Your task to perform on an android device: change the clock display to analog Image 0: 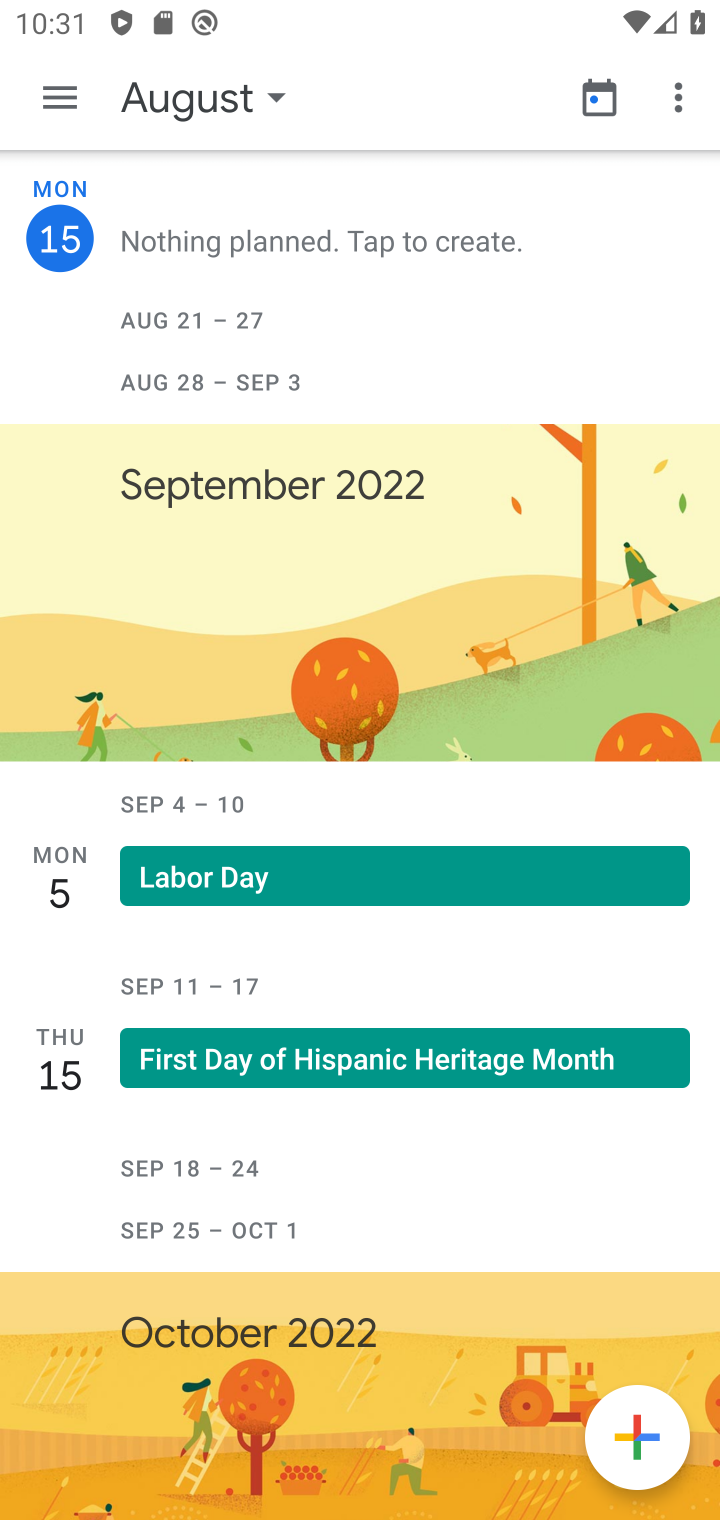
Step 0: press home button
Your task to perform on an android device: change the clock display to analog Image 1: 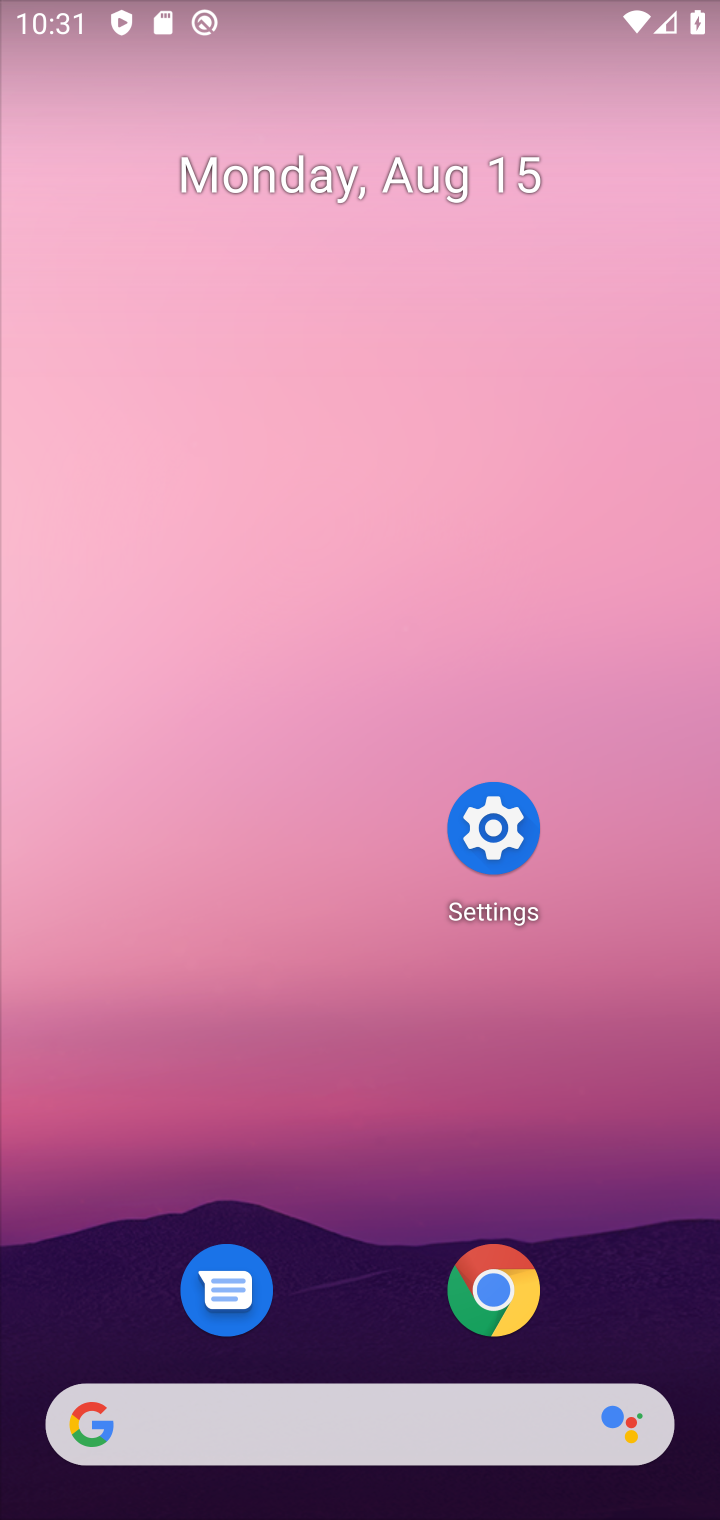
Step 1: drag from (436, 982) to (500, 204)
Your task to perform on an android device: change the clock display to analog Image 2: 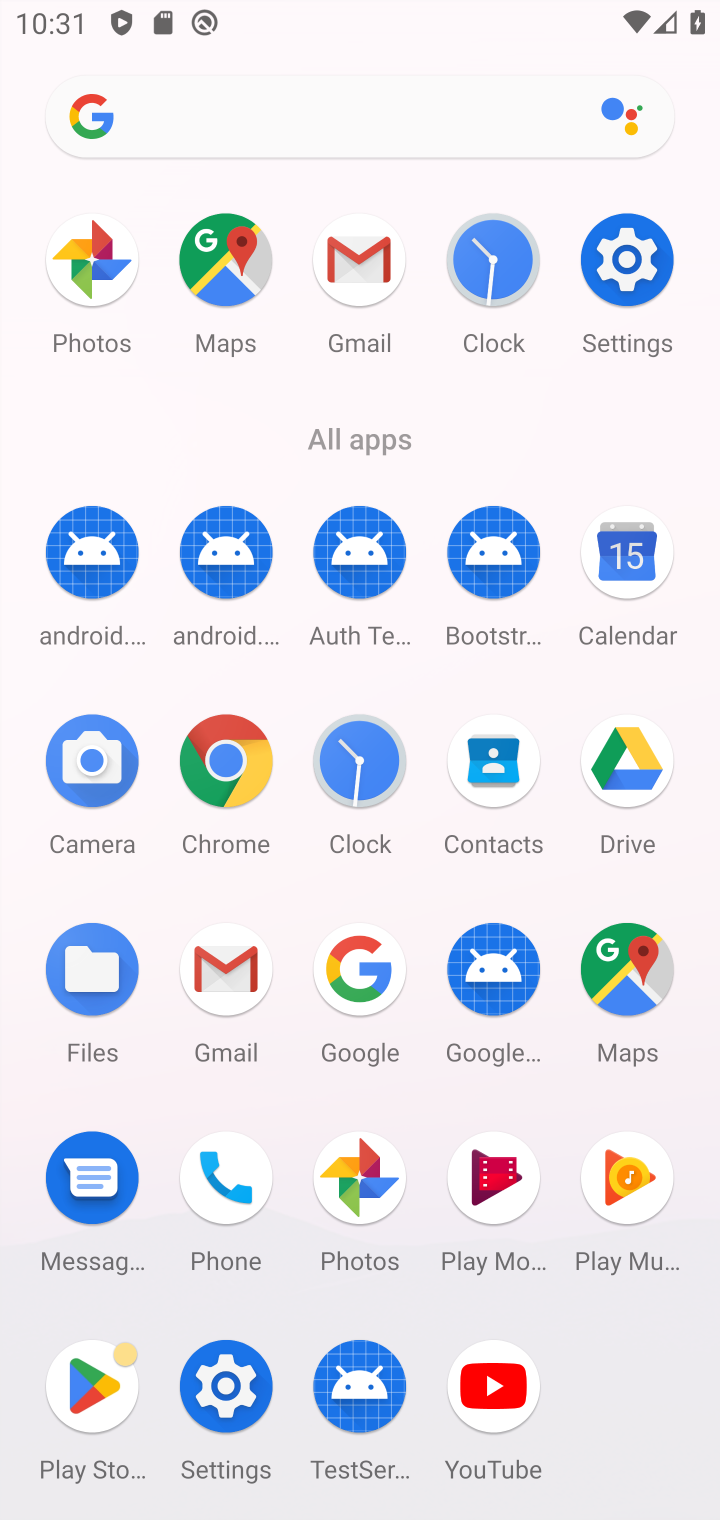
Step 2: click (486, 268)
Your task to perform on an android device: change the clock display to analog Image 3: 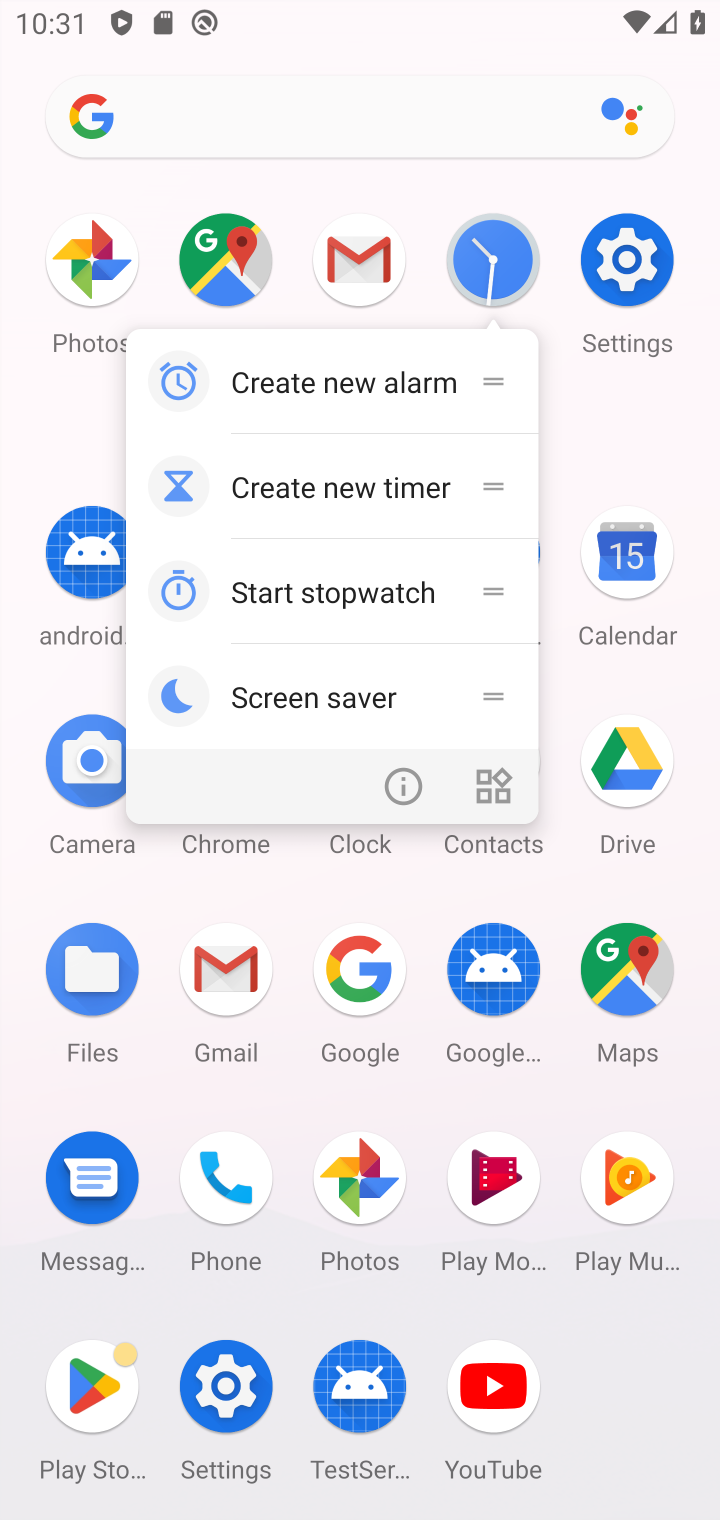
Step 3: click (486, 265)
Your task to perform on an android device: change the clock display to analog Image 4: 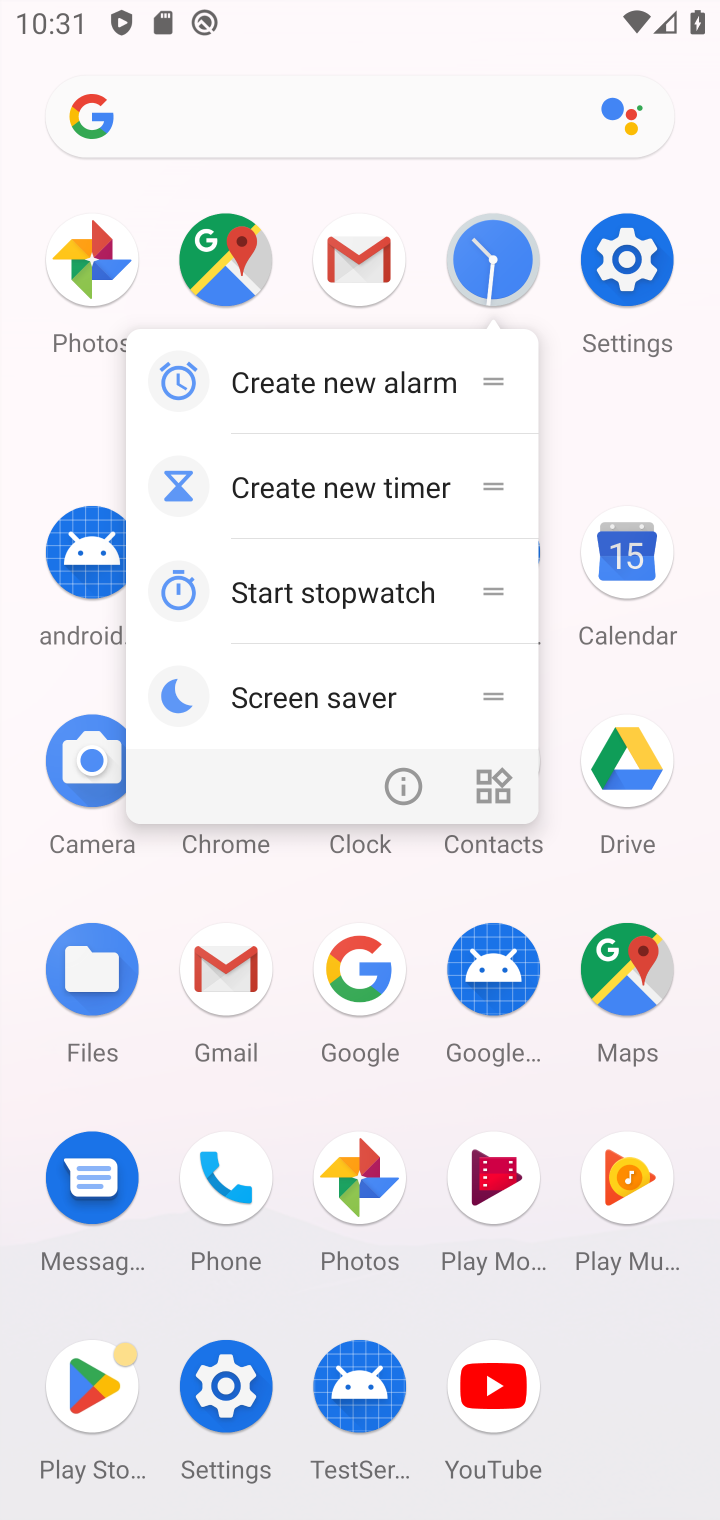
Step 4: click (497, 256)
Your task to perform on an android device: change the clock display to analog Image 5: 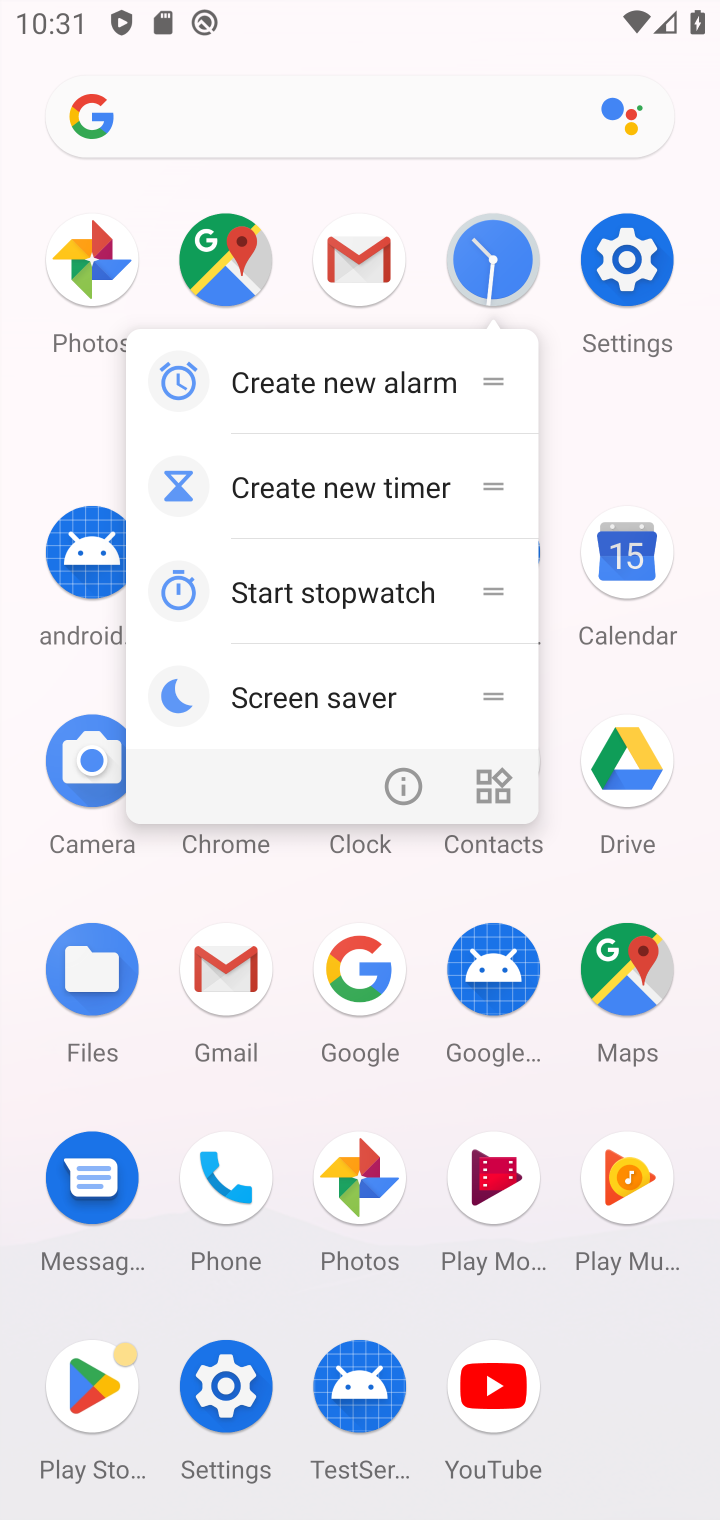
Step 5: click (497, 249)
Your task to perform on an android device: change the clock display to analog Image 6: 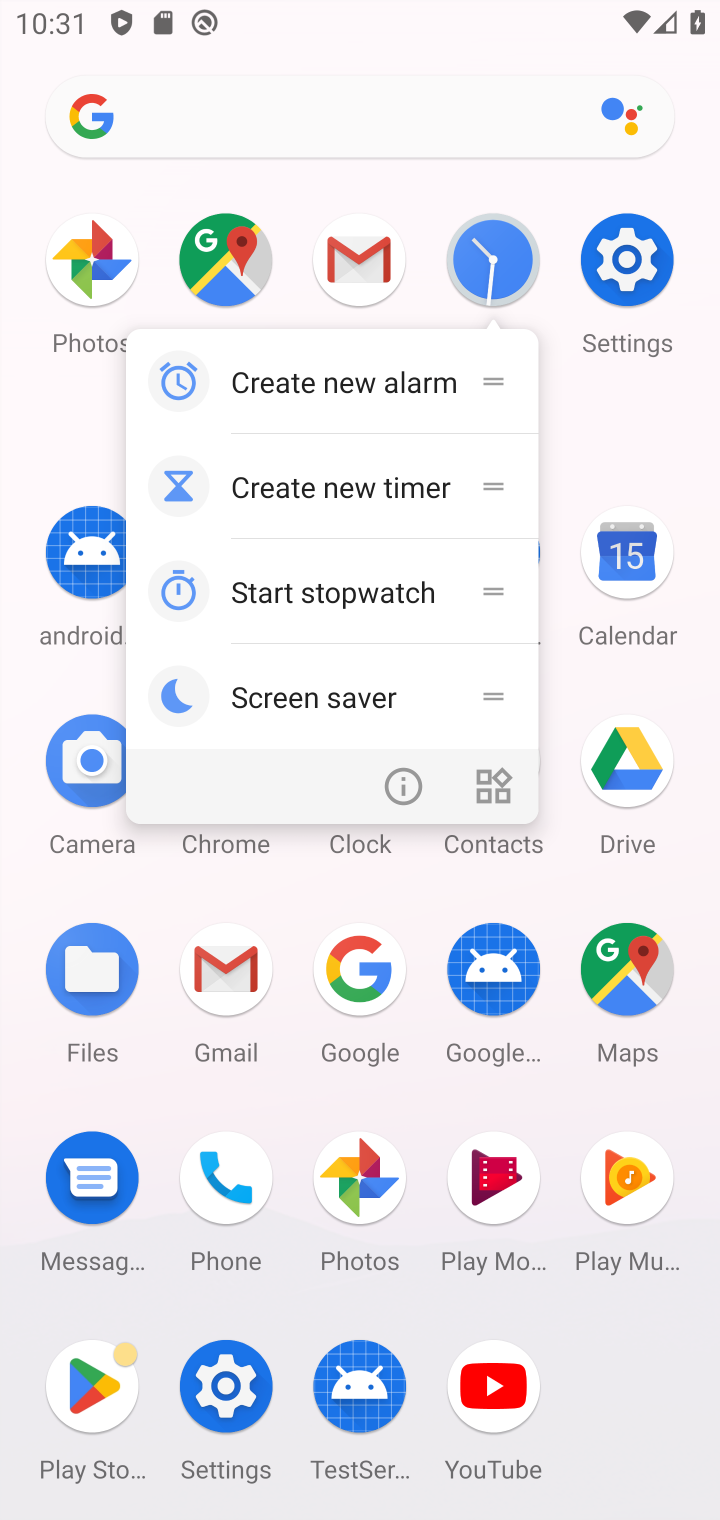
Step 6: click (501, 254)
Your task to perform on an android device: change the clock display to analog Image 7: 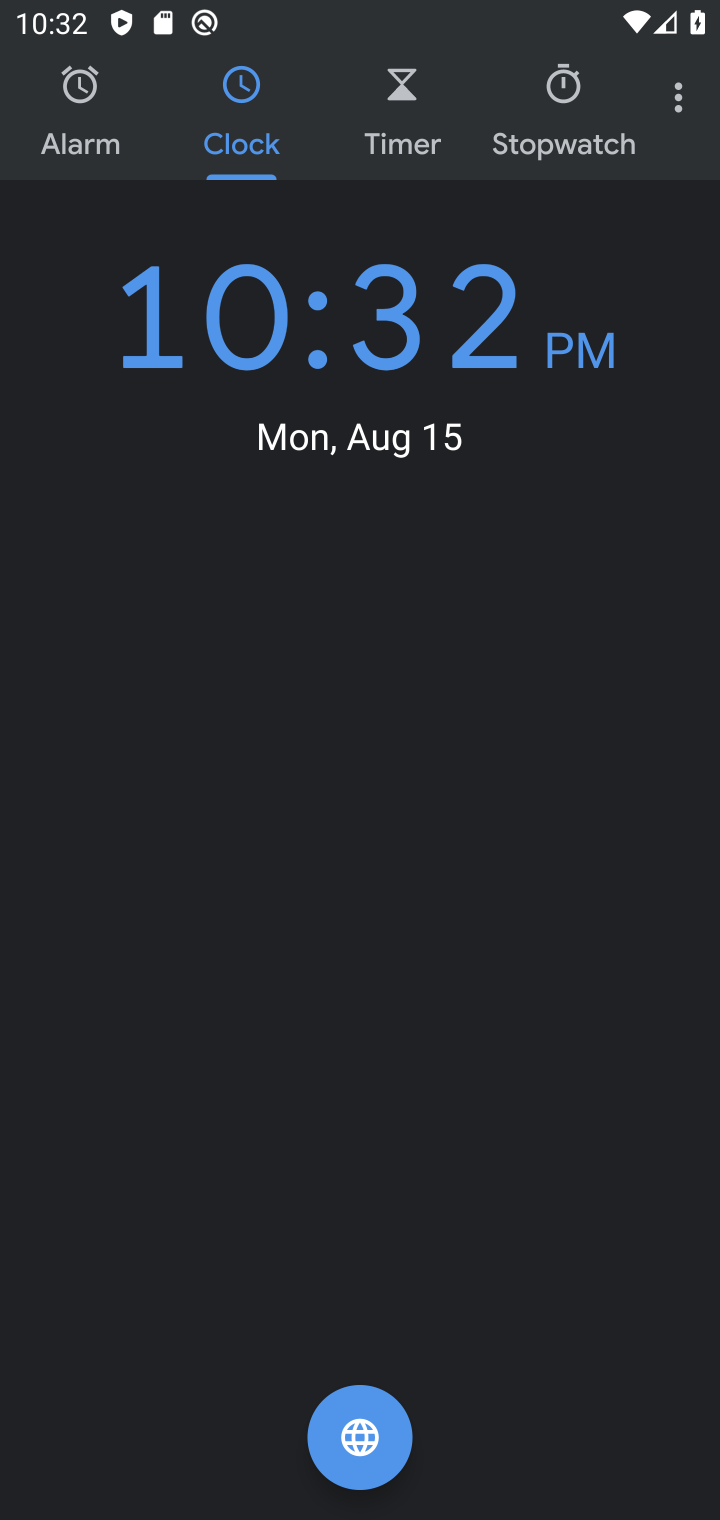
Step 7: click (673, 91)
Your task to perform on an android device: change the clock display to analog Image 8: 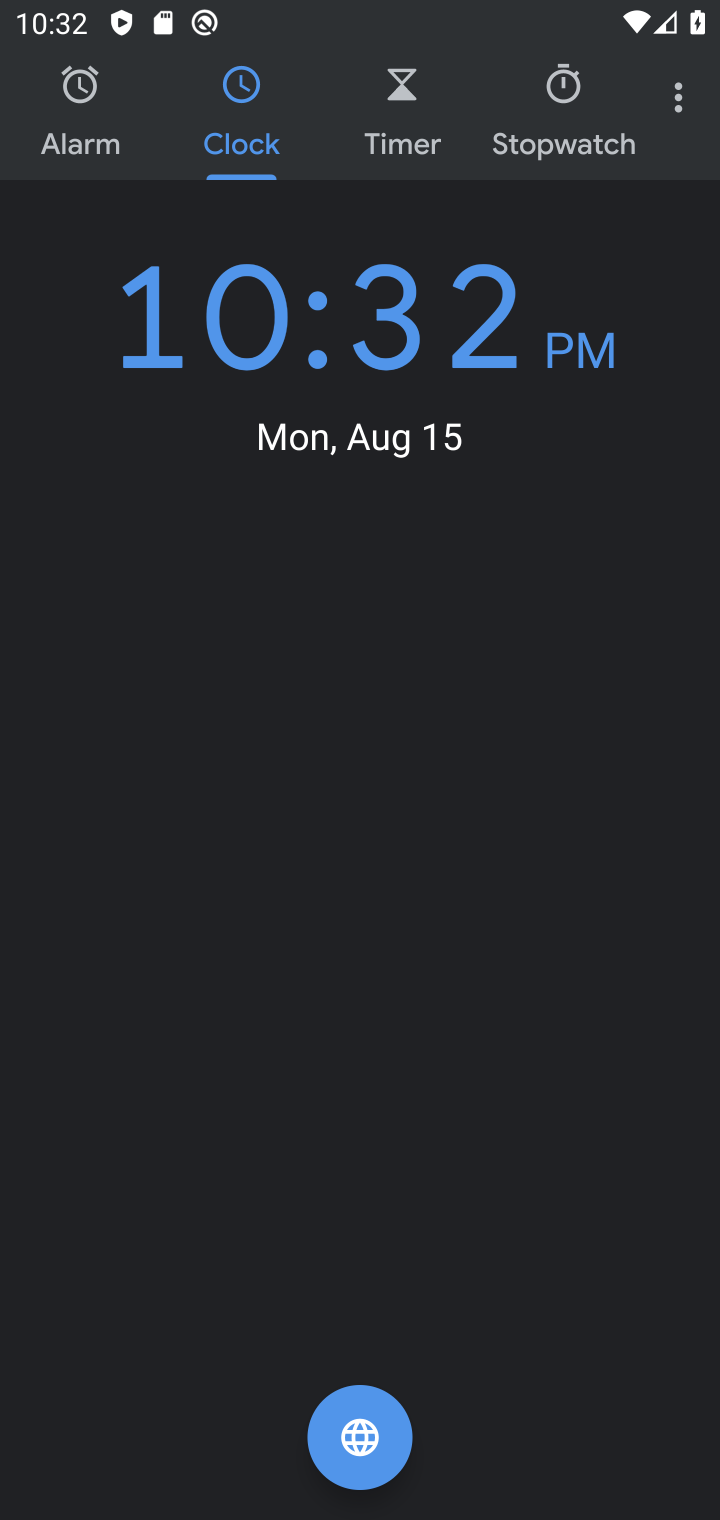
Step 8: click (672, 98)
Your task to perform on an android device: change the clock display to analog Image 9: 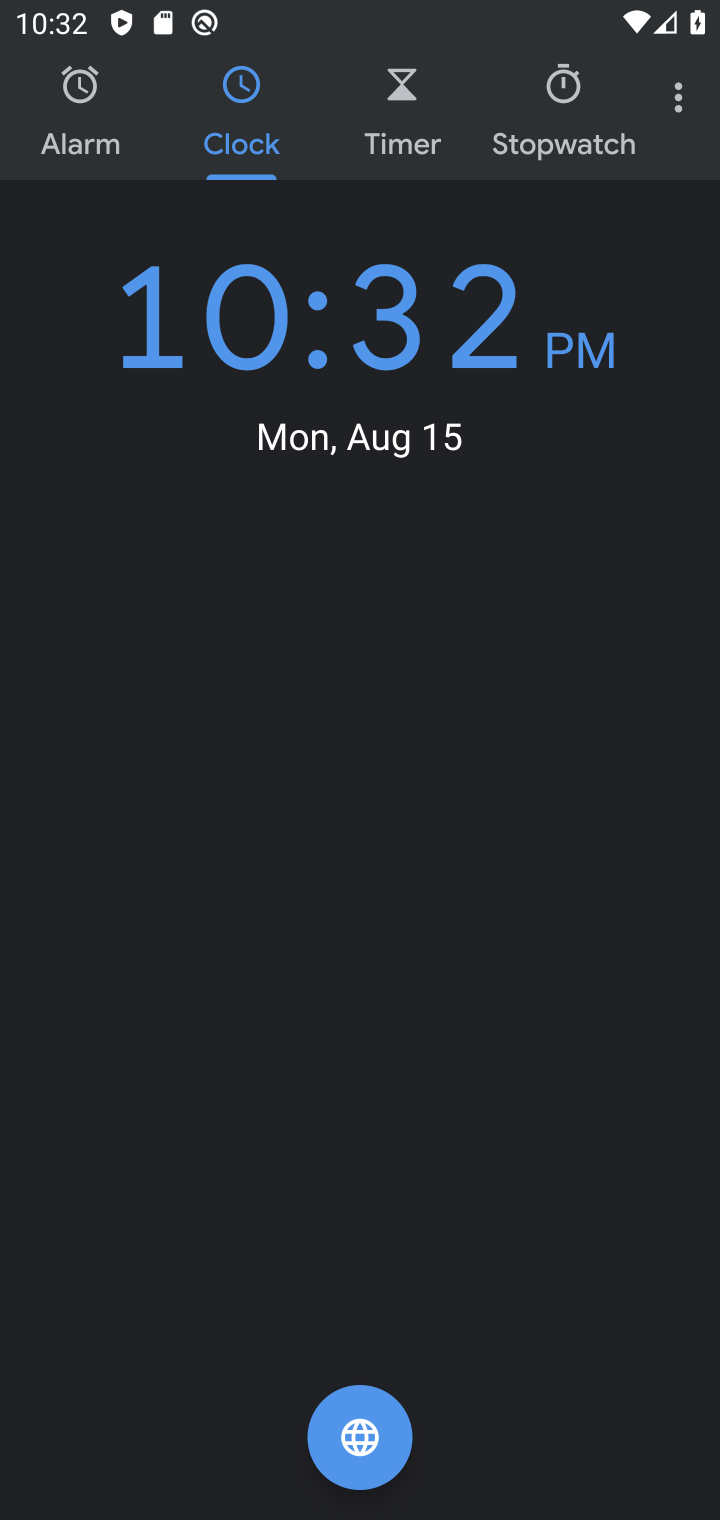
Step 9: click (682, 112)
Your task to perform on an android device: change the clock display to analog Image 10: 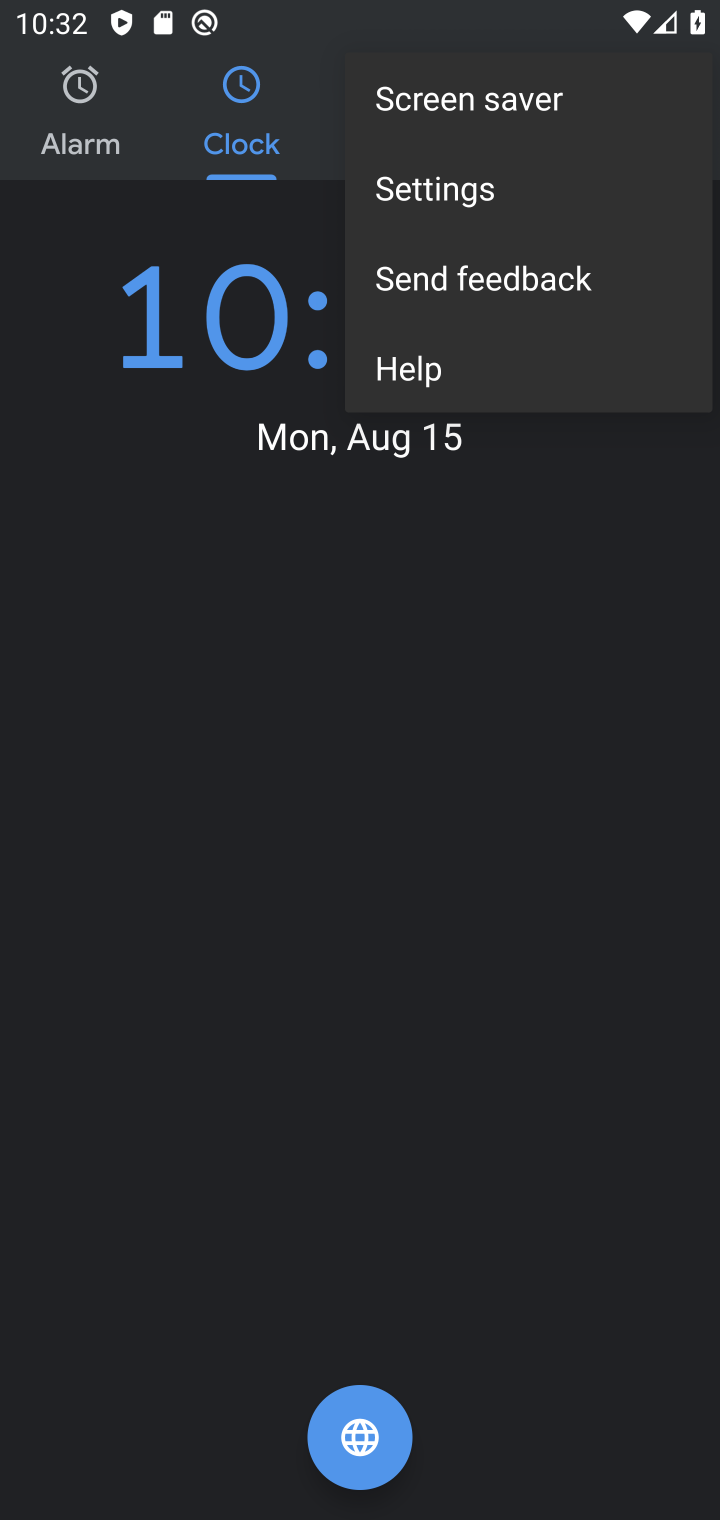
Step 10: click (467, 184)
Your task to perform on an android device: change the clock display to analog Image 11: 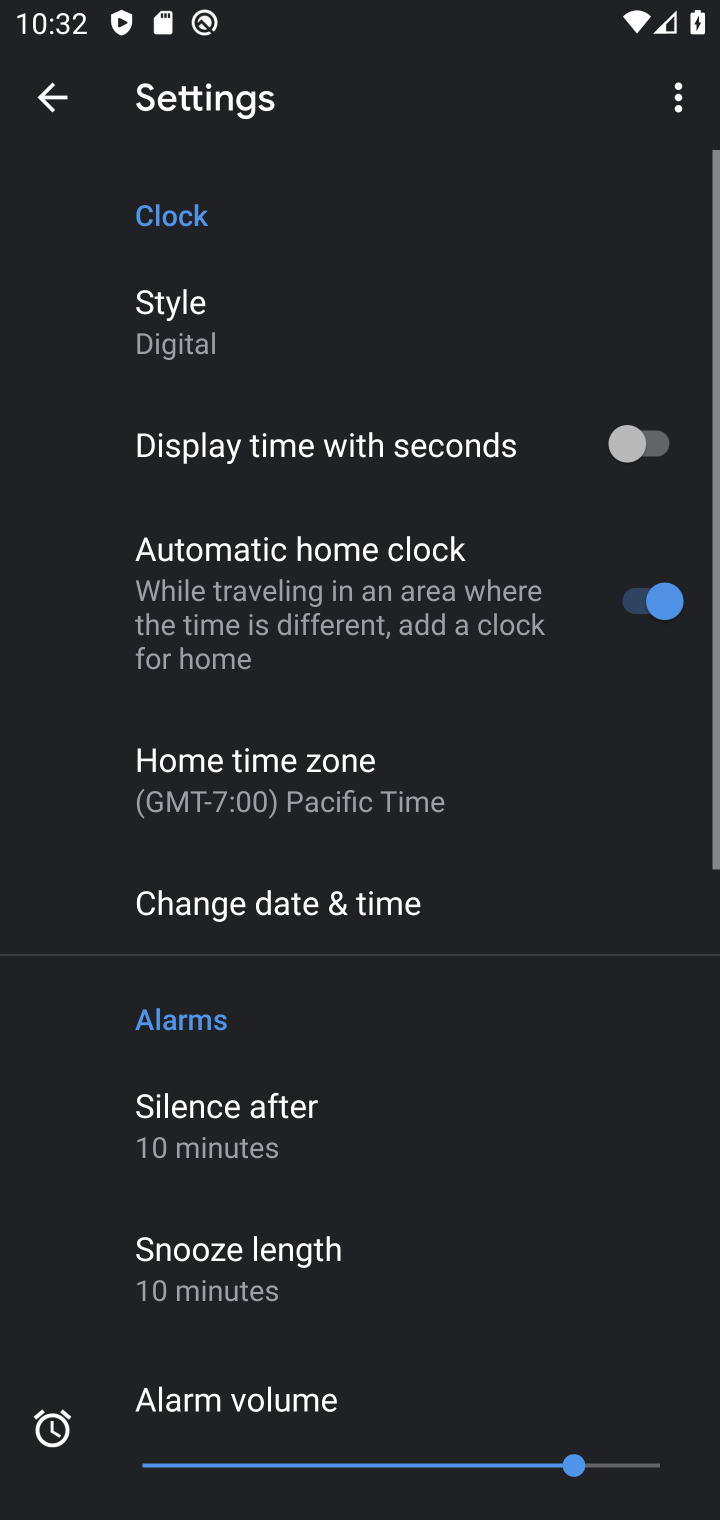
Step 11: click (192, 298)
Your task to perform on an android device: change the clock display to analog Image 12: 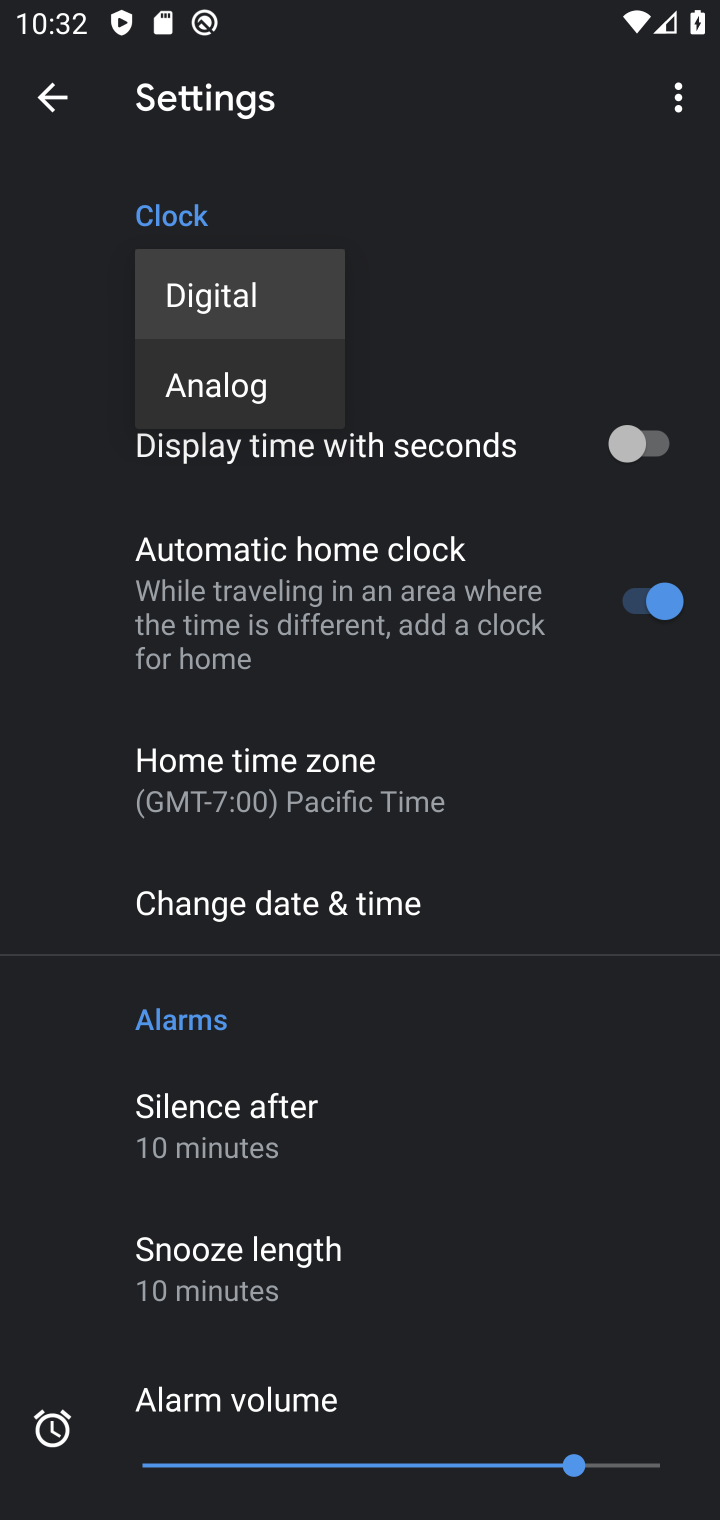
Step 12: click (251, 387)
Your task to perform on an android device: change the clock display to analog Image 13: 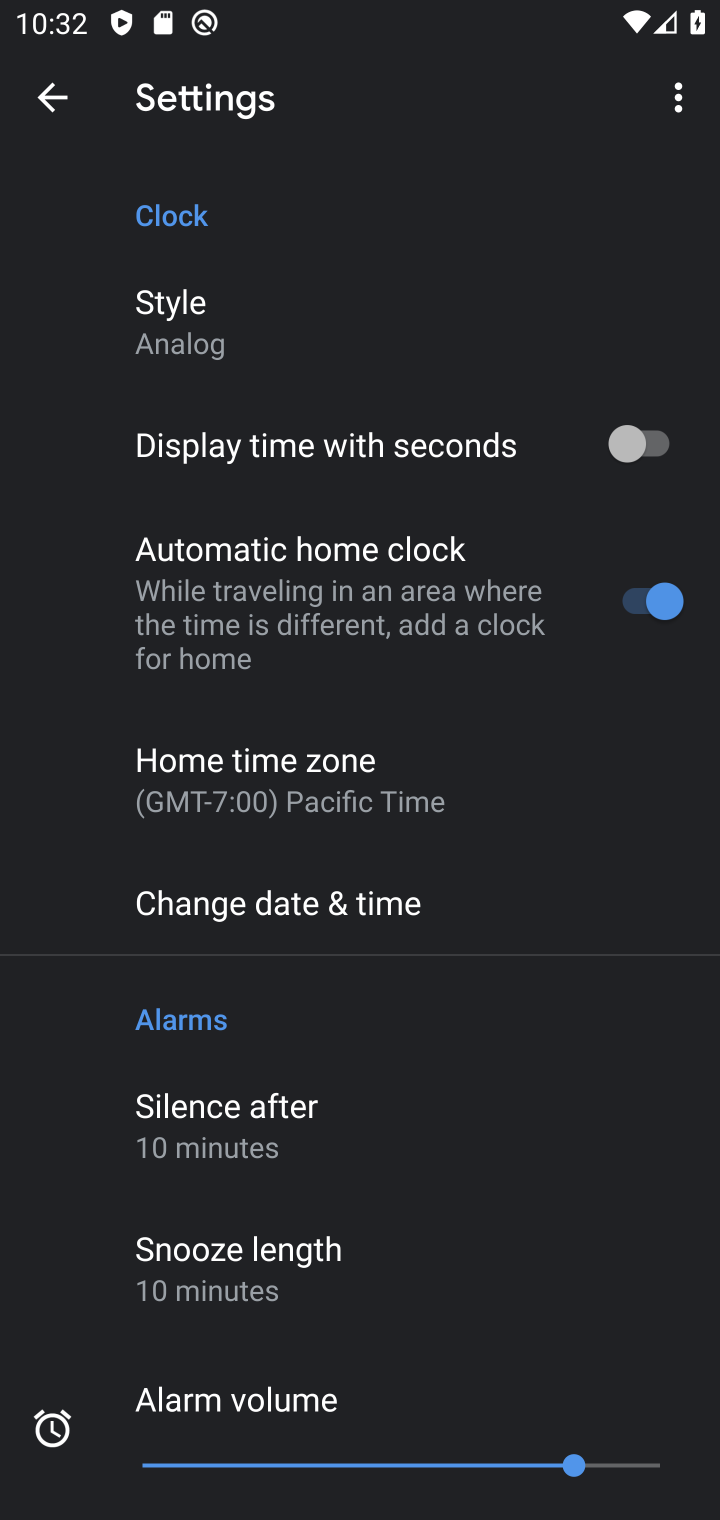
Step 13: task complete